Your task to perform on an android device: Search for flights from NYC to Buenos aires Image 0: 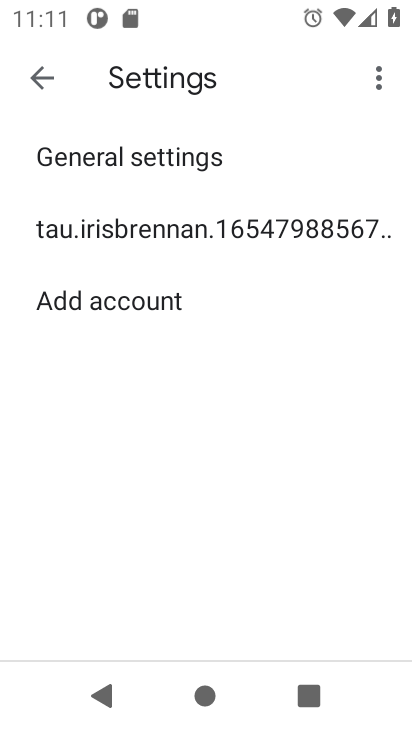
Step 0: press home button
Your task to perform on an android device: Search for flights from NYC to Buenos aires Image 1: 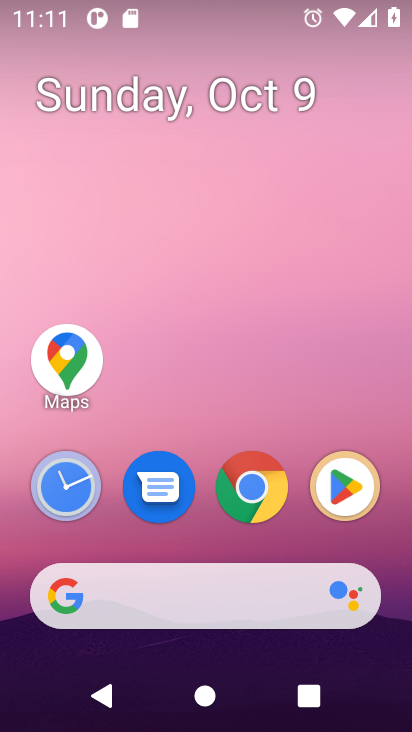
Step 1: drag from (207, 543) to (241, 27)
Your task to perform on an android device: Search for flights from NYC to Buenos aires Image 2: 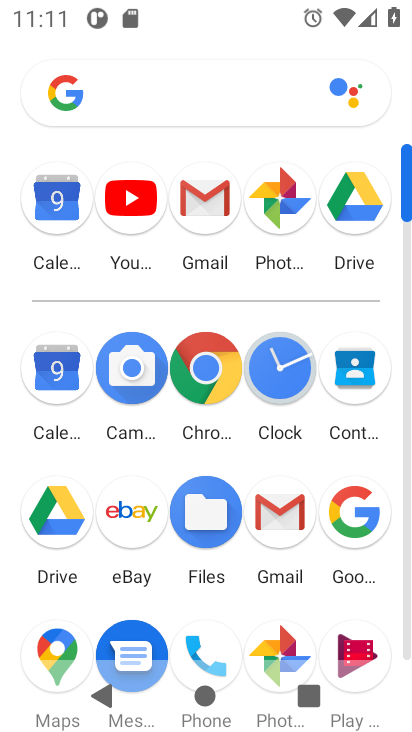
Step 2: click (205, 364)
Your task to perform on an android device: Search for flights from NYC to Buenos aires Image 3: 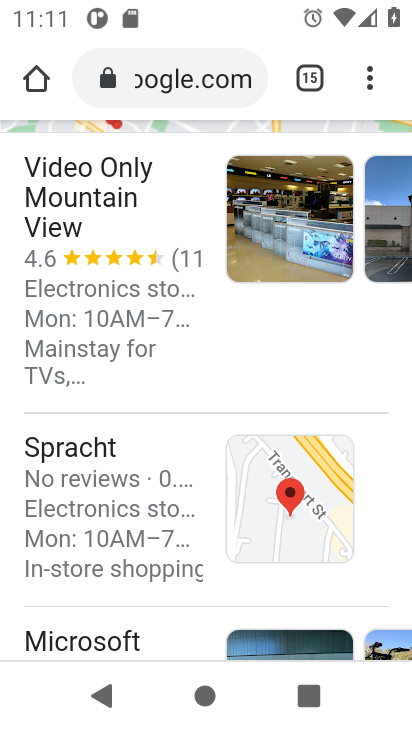
Step 3: drag from (365, 83) to (102, 155)
Your task to perform on an android device: Search for flights from NYC to Buenos aires Image 4: 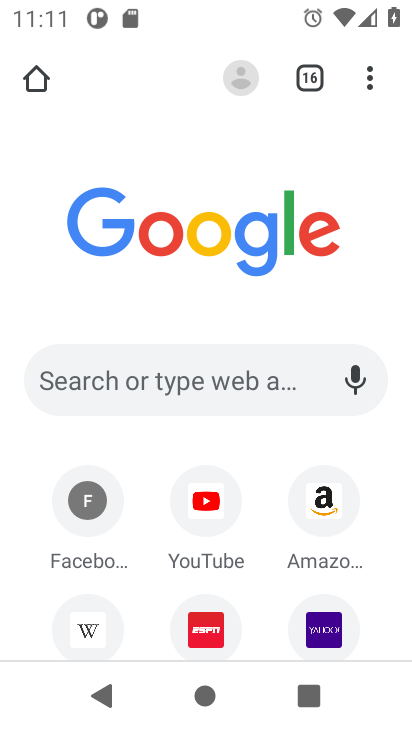
Step 4: click (190, 381)
Your task to perform on an android device: Search for flights from NYC to Buenos aires Image 5: 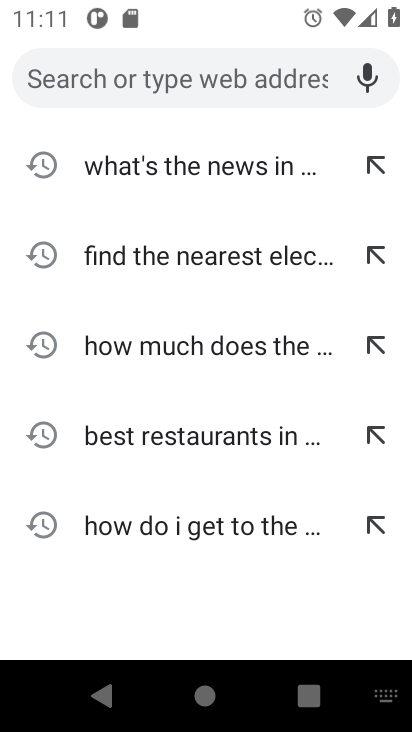
Step 5: type " flights from NYC to Buenos aires"
Your task to perform on an android device: Search for flights from NYC to Buenos aires Image 6: 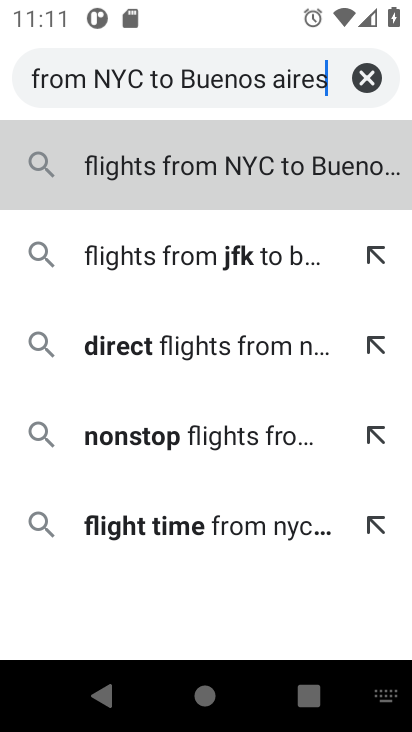
Step 6: click (247, 167)
Your task to perform on an android device: Search for flights from NYC to Buenos aires Image 7: 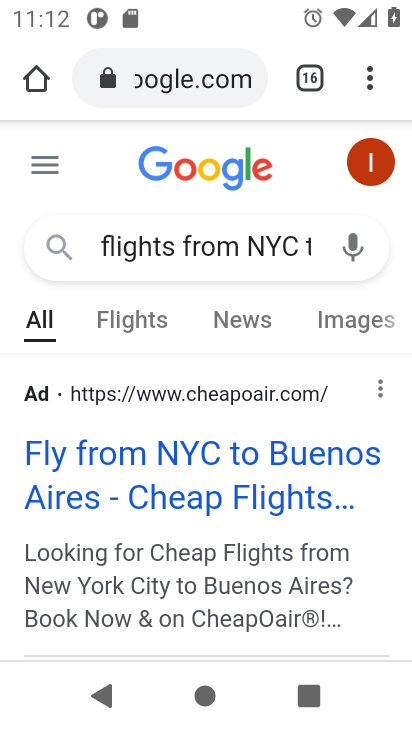
Step 7: click (168, 467)
Your task to perform on an android device: Search for flights from NYC to Buenos aires Image 8: 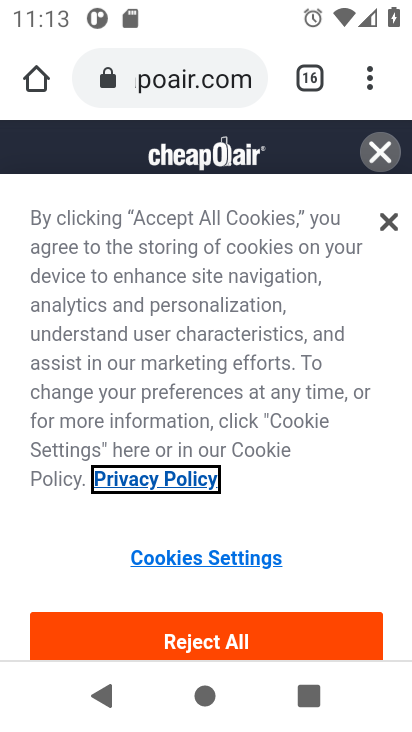
Step 8: drag from (258, 511) to (258, 198)
Your task to perform on an android device: Search for flights from NYC to Buenos aires Image 9: 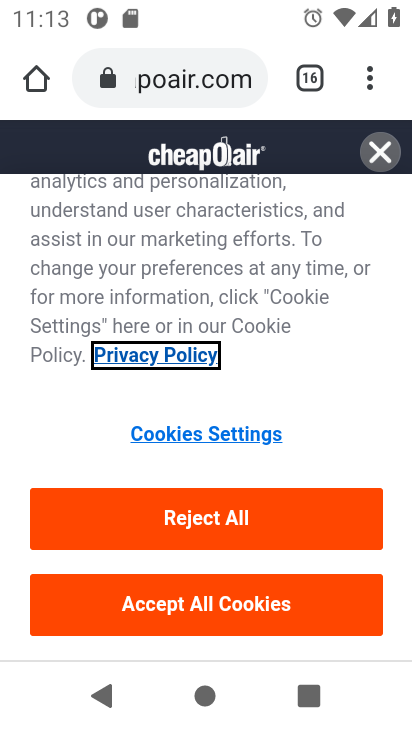
Step 9: click (378, 149)
Your task to perform on an android device: Search for flights from NYC to Buenos aires Image 10: 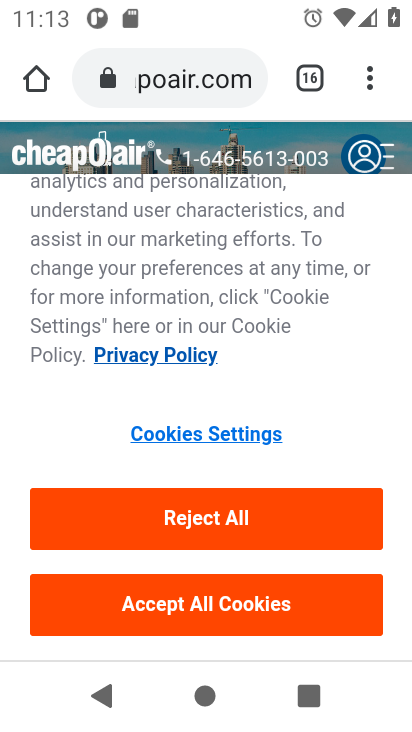
Step 10: drag from (252, 440) to (256, 187)
Your task to perform on an android device: Search for flights from NYC to Buenos aires Image 11: 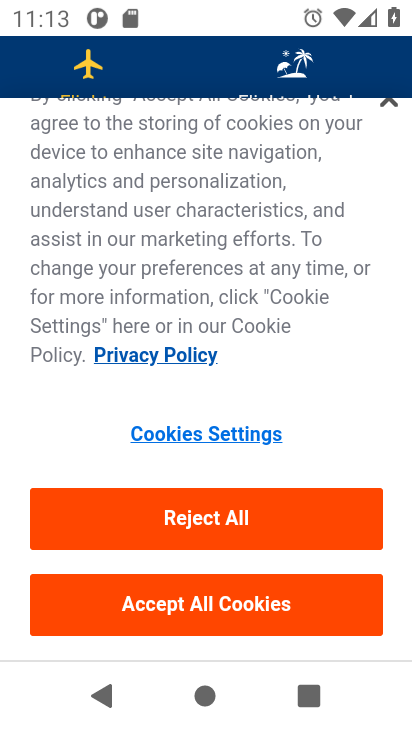
Step 11: drag from (248, 139) to (197, 367)
Your task to perform on an android device: Search for flights from NYC to Buenos aires Image 12: 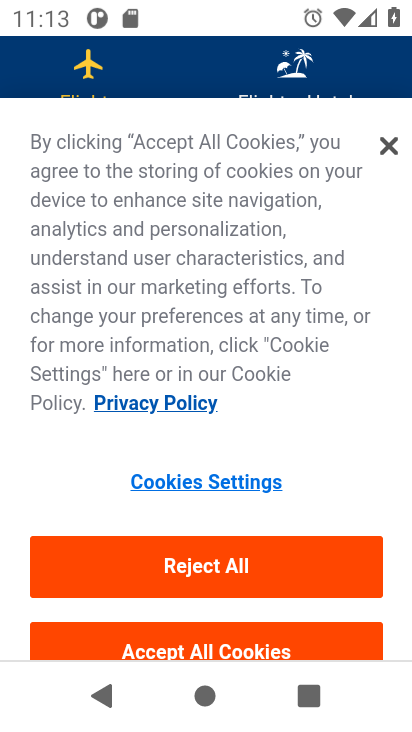
Step 12: click (387, 141)
Your task to perform on an android device: Search for flights from NYC to Buenos aires Image 13: 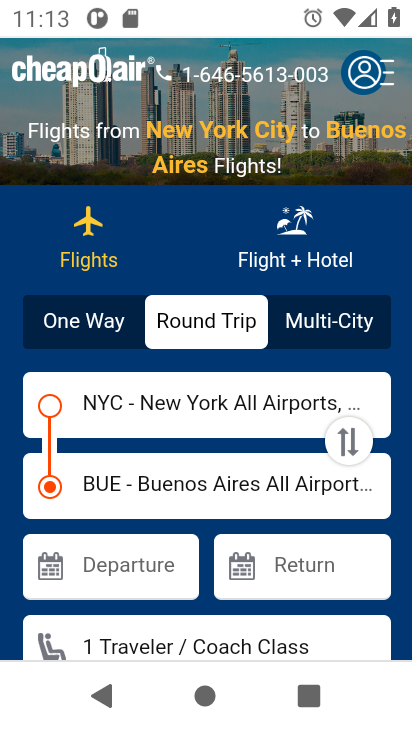
Step 13: task complete